Your task to perform on an android device: check storage Image 0: 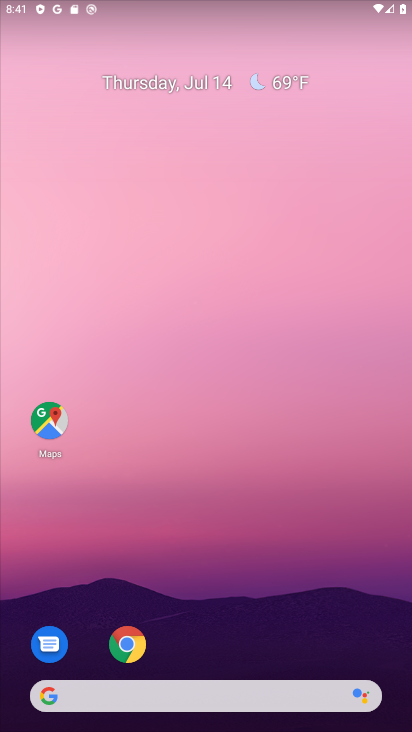
Step 0: drag from (215, 634) to (357, 89)
Your task to perform on an android device: check storage Image 1: 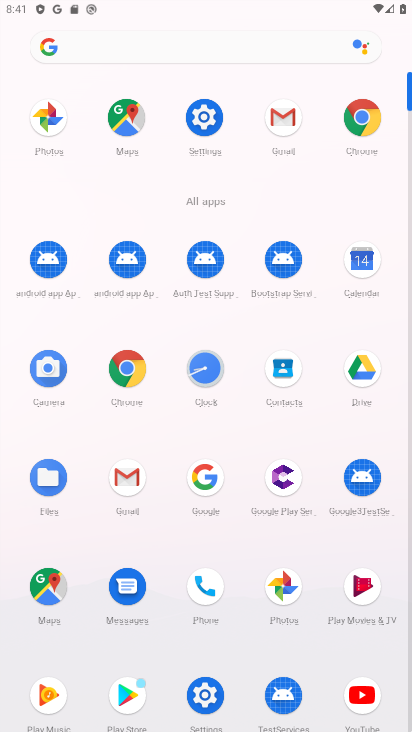
Step 1: click (191, 109)
Your task to perform on an android device: check storage Image 2: 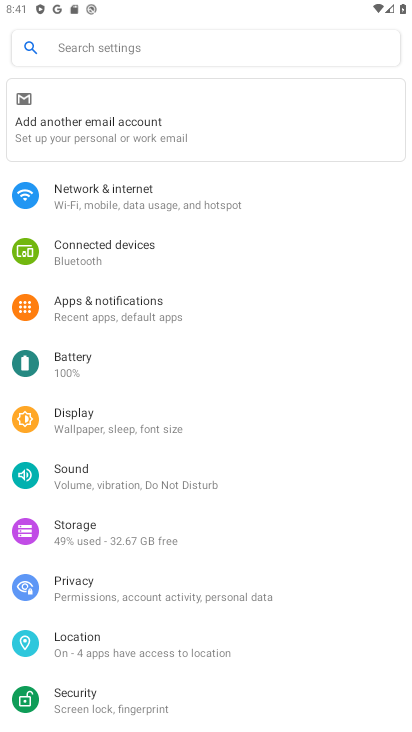
Step 2: click (281, 542)
Your task to perform on an android device: check storage Image 3: 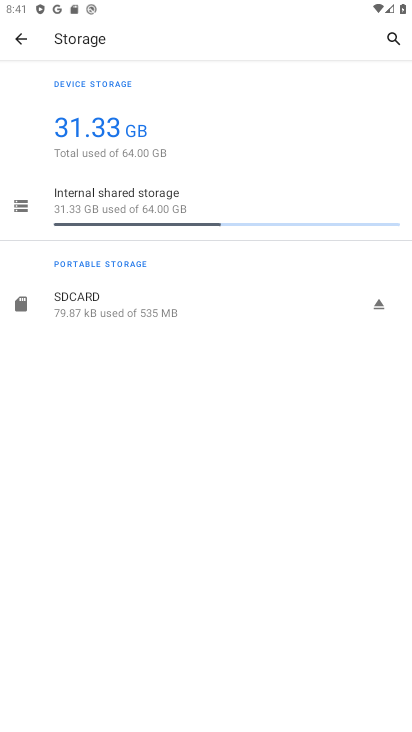
Step 3: task complete